Your task to perform on an android device: change your default location settings in chrome Image 0: 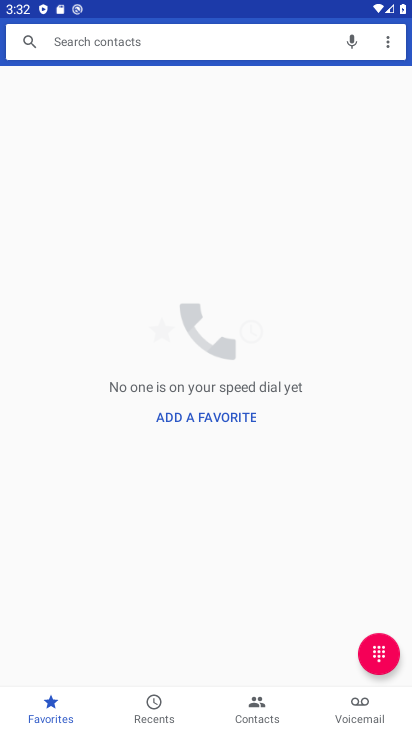
Step 0: press home button
Your task to perform on an android device: change your default location settings in chrome Image 1: 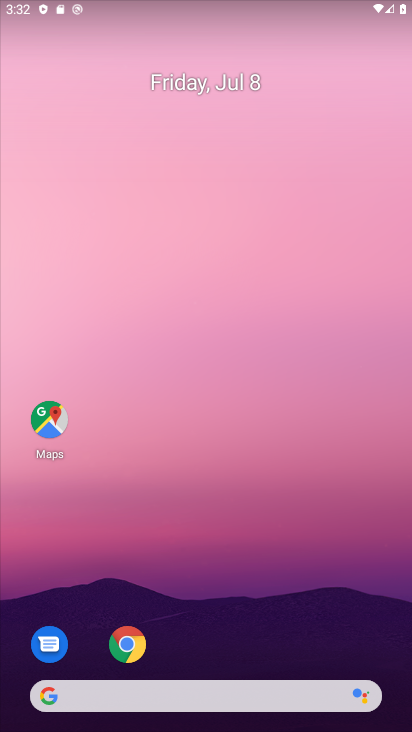
Step 1: click (135, 635)
Your task to perform on an android device: change your default location settings in chrome Image 2: 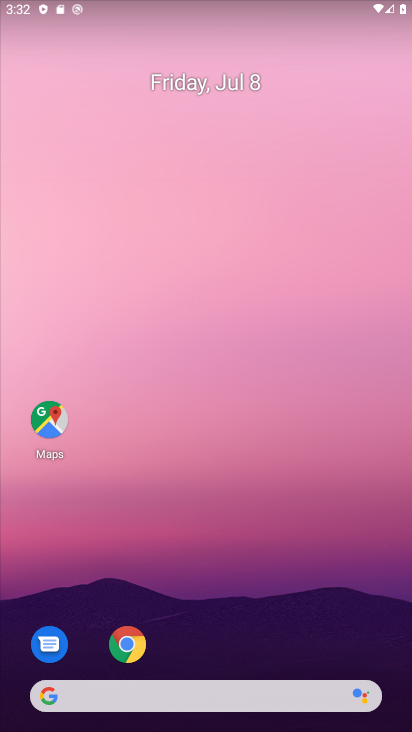
Step 2: click (224, 519)
Your task to perform on an android device: change your default location settings in chrome Image 3: 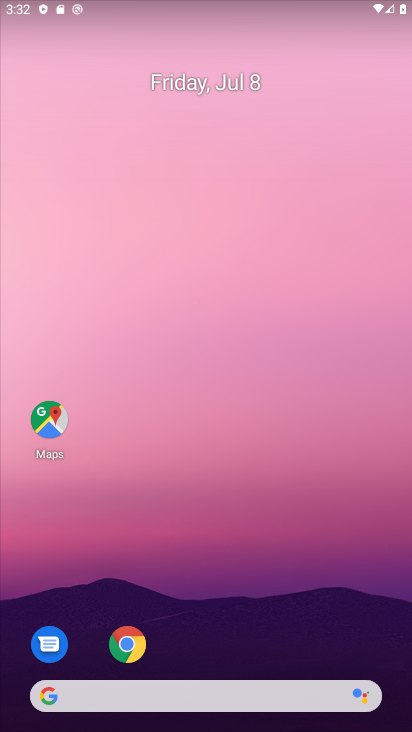
Step 3: click (224, 519)
Your task to perform on an android device: change your default location settings in chrome Image 4: 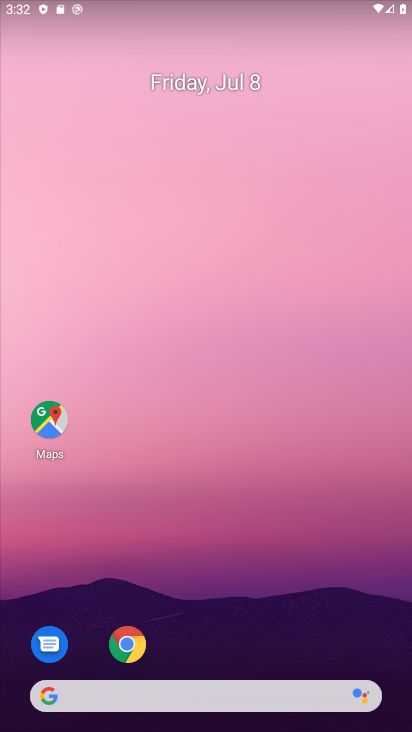
Step 4: click (132, 659)
Your task to perform on an android device: change your default location settings in chrome Image 5: 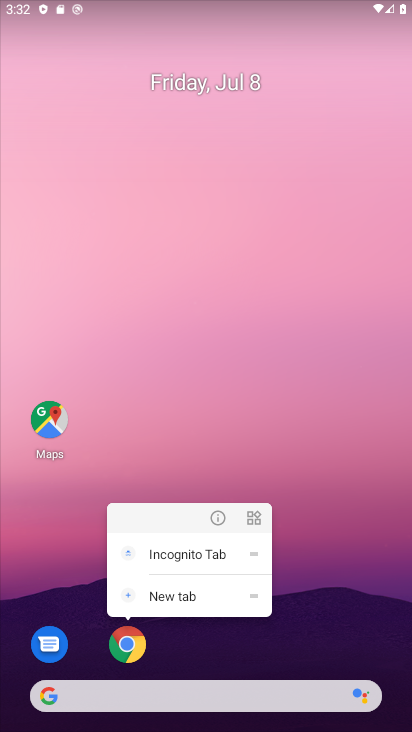
Step 5: click (218, 512)
Your task to perform on an android device: change your default location settings in chrome Image 6: 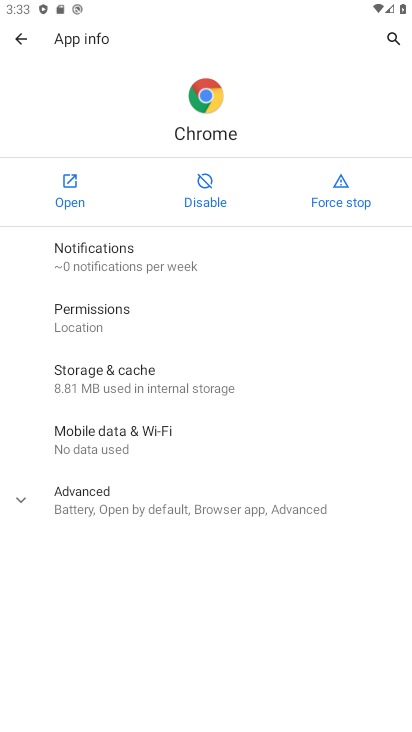
Step 6: click (155, 259)
Your task to perform on an android device: change your default location settings in chrome Image 7: 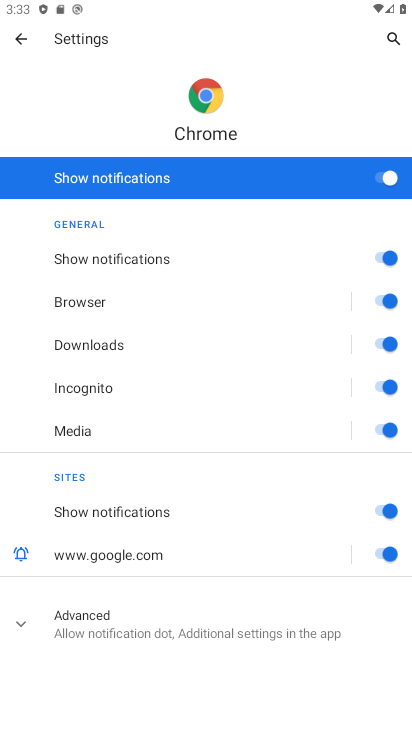
Step 7: click (24, 32)
Your task to perform on an android device: change your default location settings in chrome Image 8: 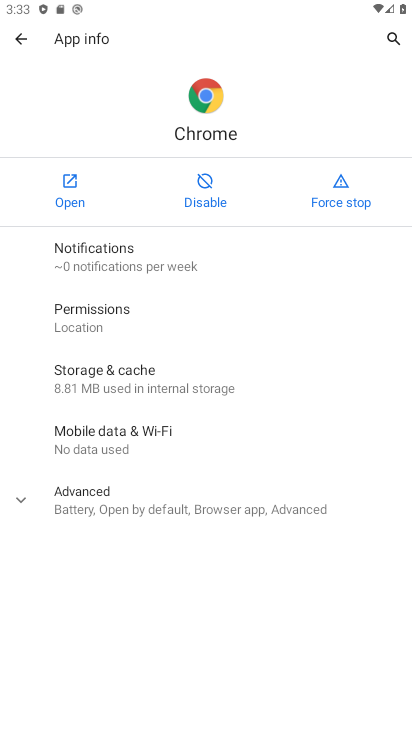
Step 8: task complete